Your task to perform on an android device: open app "Flipkart Online Shopping App" (install if not already installed) Image 0: 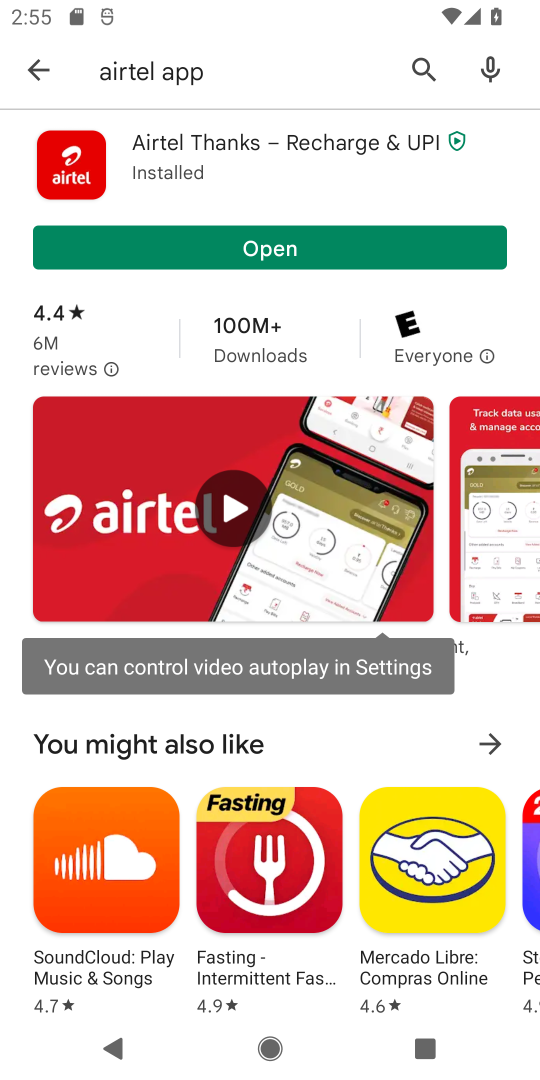
Step 0: click (415, 70)
Your task to perform on an android device: open app "Flipkart Online Shopping App" (install if not already installed) Image 1: 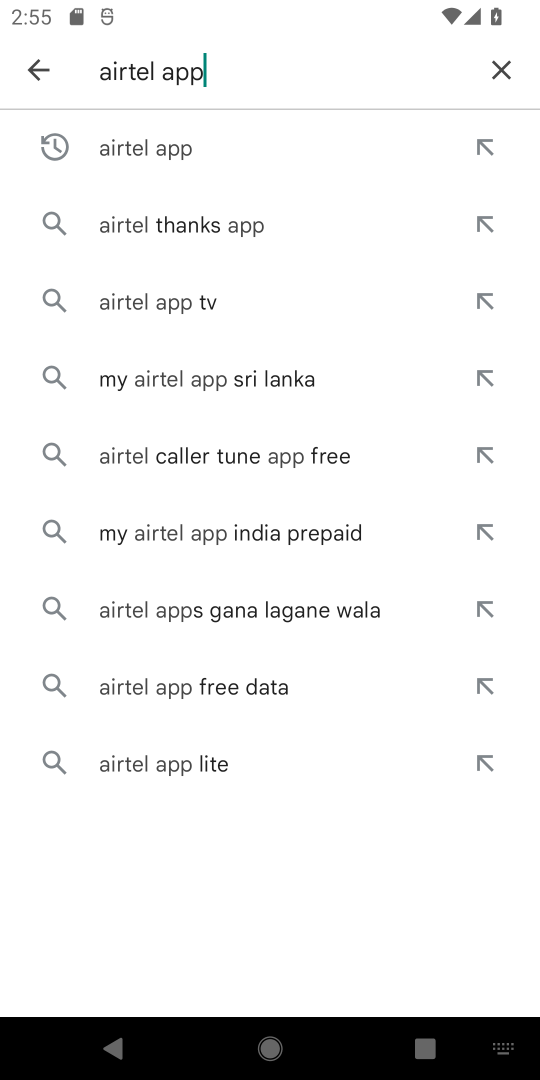
Step 1: click (486, 70)
Your task to perform on an android device: open app "Flipkart Online Shopping App" (install if not already installed) Image 2: 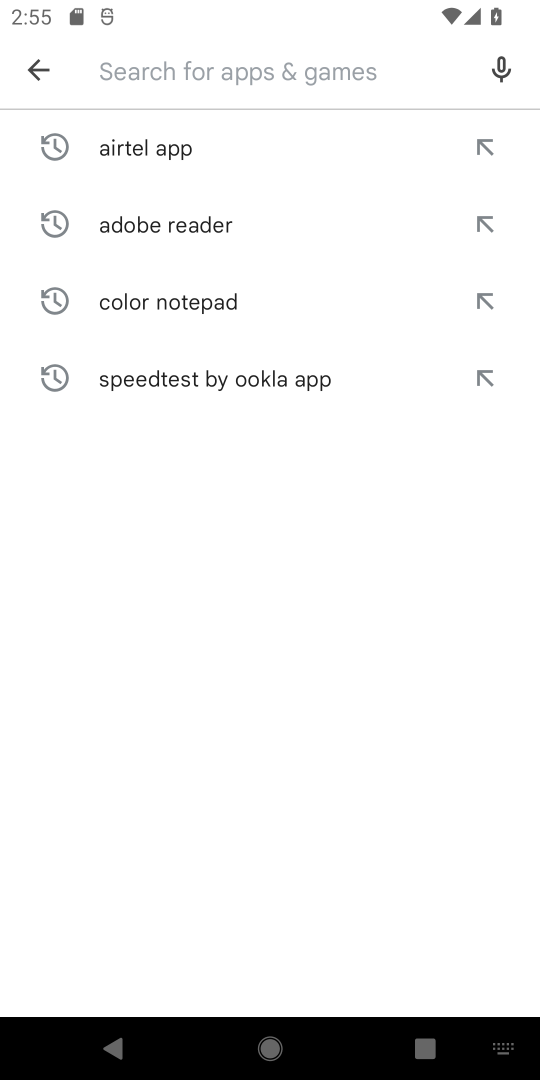
Step 2: type "flipkart"
Your task to perform on an android device: open app "Flipkart Online Shopping App" (install if not already installed) Image 3: 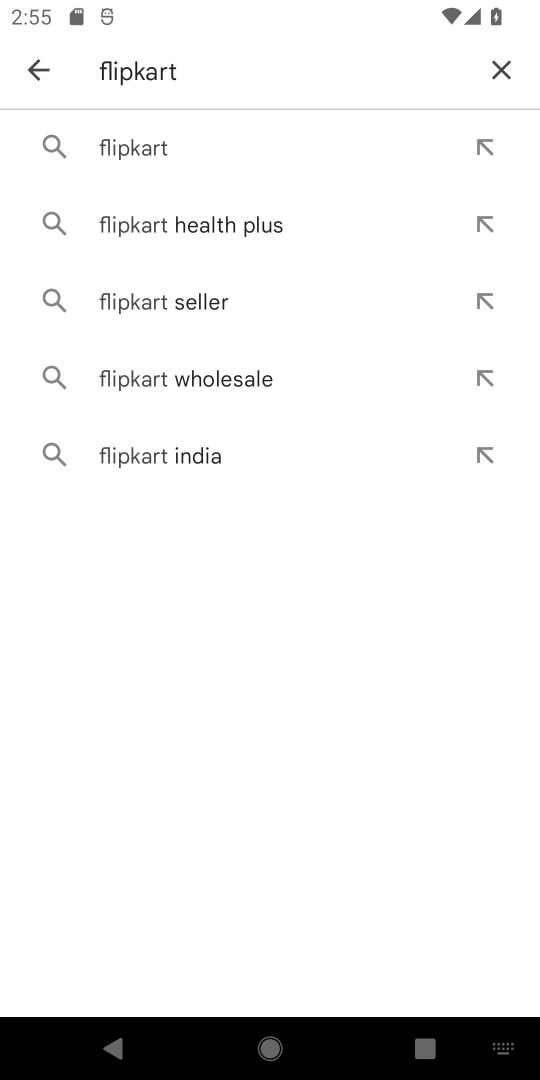
Step 3: click (242, 151)
Your task to perform on an android device: open app "Flipkart Online Shopping App" (install if not already installed) Image 4: 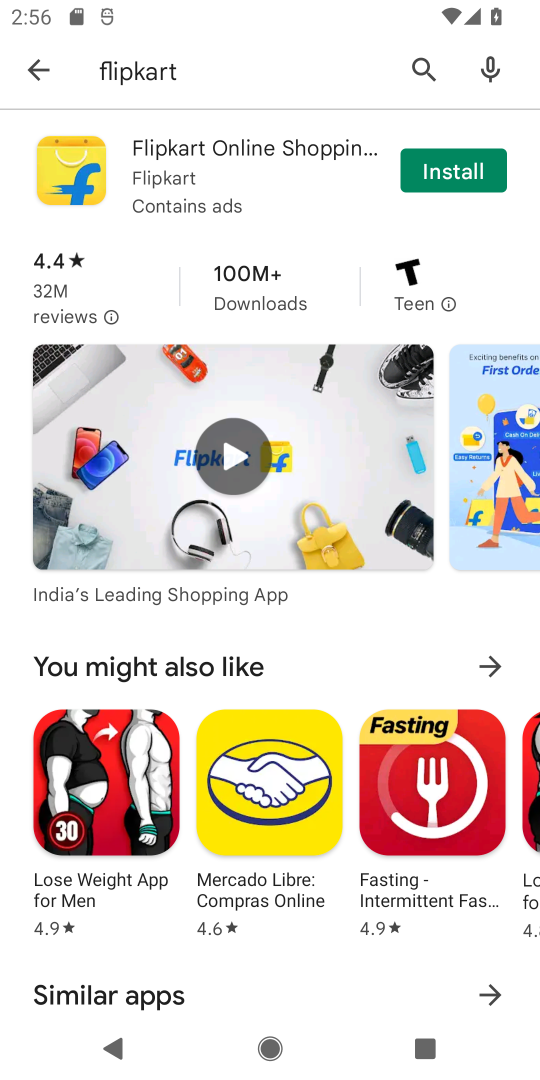
Step 4: click (425, 171)
Your task to perform on an android device: open app "Flipkart Online Shopping App" (install if not already installed) Image 5: 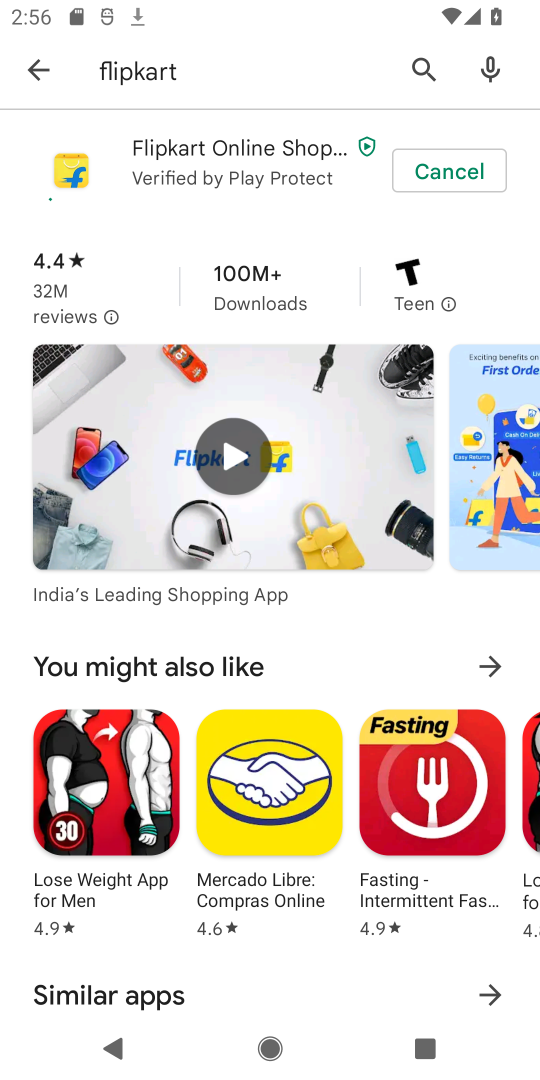
Step 5: task complete